Your task to perform on an android device: Open my contact list Image 0: 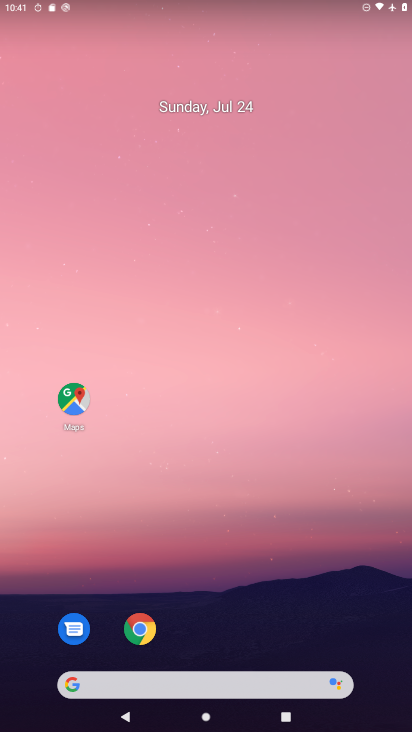
Step 0: drag from (222, 685) to (175, 203)
Your task to perform on an android device: Open my contact list Image 1: 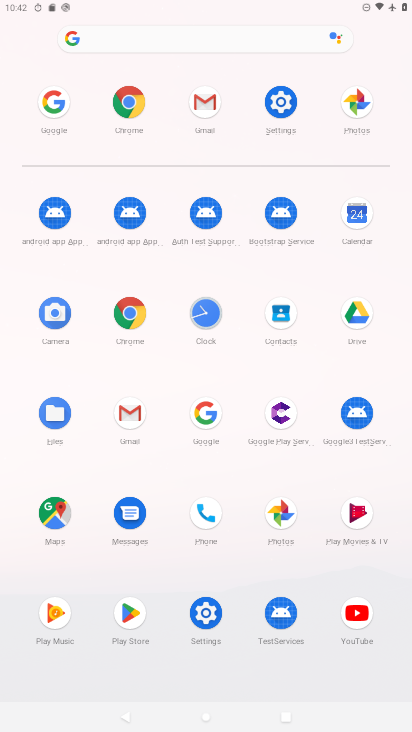
Step 1: click (288, 326)
Your task to perform on an android device: Open my contact list Image 2: 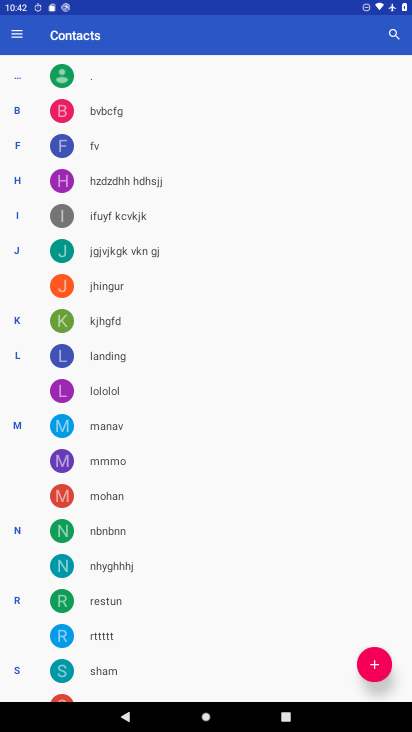
Step 2: task complete